Your task to perform on an android device: toggle wifi Image 0: 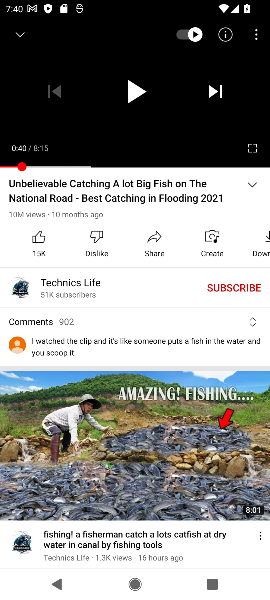
Step 0: press home button
Your task to perform on an android device: toggle wifi Image 1: 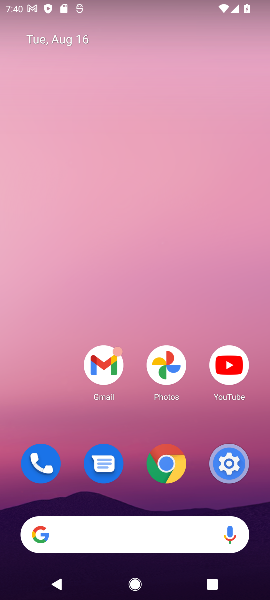
Step 1: drag from (129, 458) to (134, 4)
Your task to perform on an android device: toggle wifi Image 2: 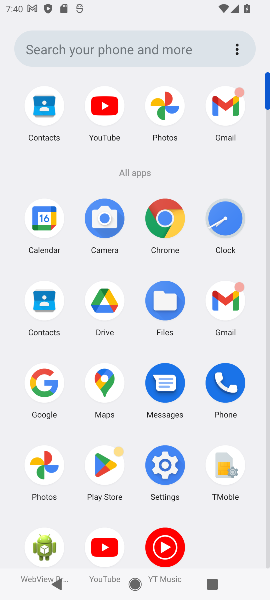
Step 2: click (173, 474)
Your task to perform on an android device: toggle wifi Image 3: 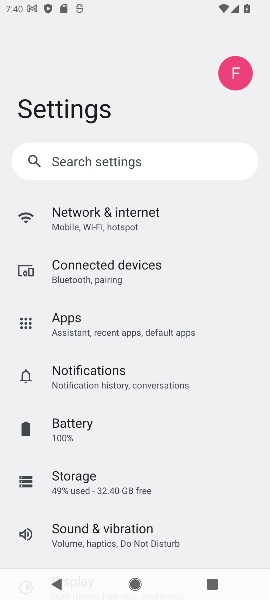
Step 3: click (123, 222)
Your task to perform on an android device: toggle wifi Image 4: 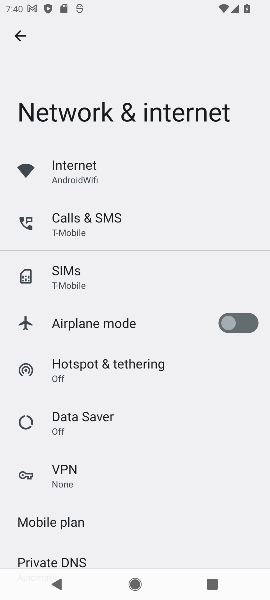
Step 4: click (86, 175)
Your task to perform on an android device: toggle wifi Image 5: 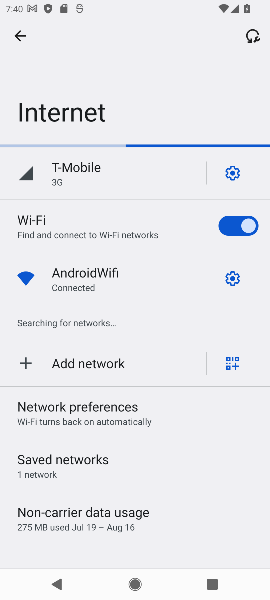
Step 5: click (218, 215)
Your task to perform on an android device: toggle wifi Image 6: 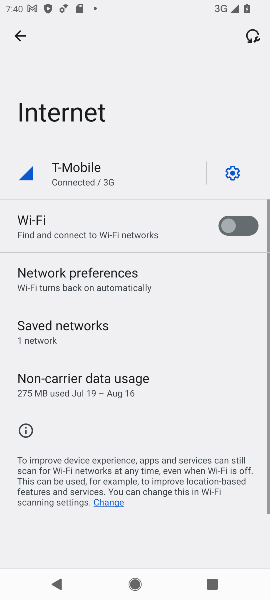
Step 6: task complete